Your task to perform on an android device: Play the last video I watched on Youtube Image 0: 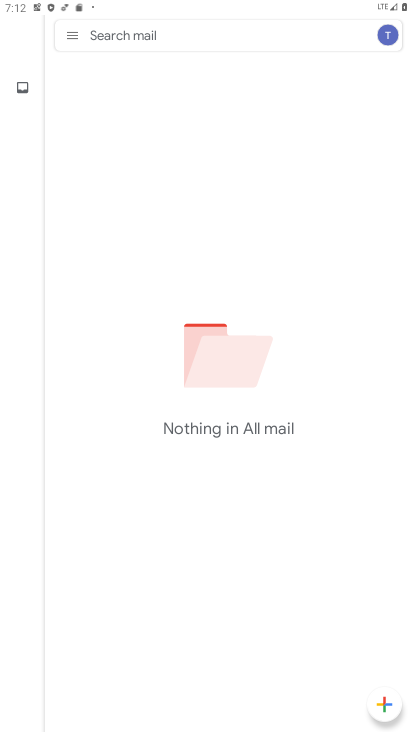
Step 0: press home button
Your task to perform on an android device: Play the last video I watched on Youtube Image 1: 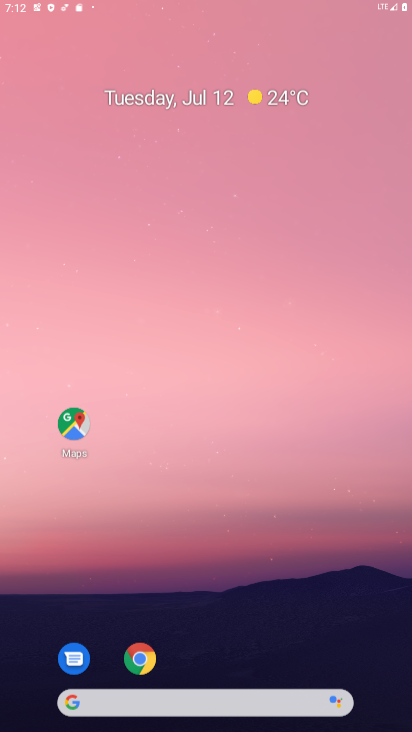
Step 1: drag from (392, 678) to (272, 15)
Your task to perform on an android device: Play the last video I watched on Youtube Image 2: 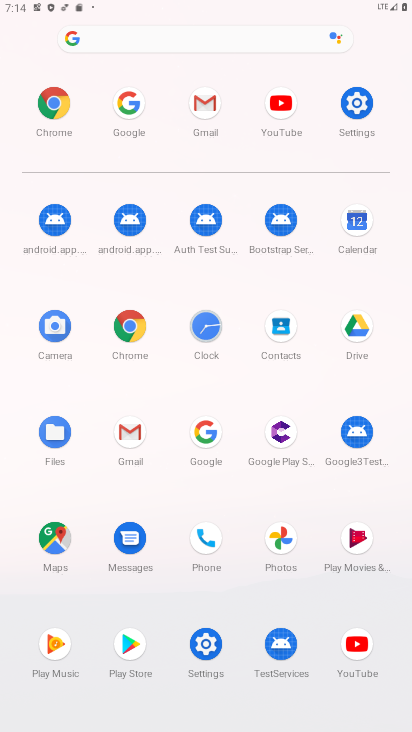
Step 2: click (359, 667)
Your task to perform on an android device: Play the last video I watched on Youtube Image 3: 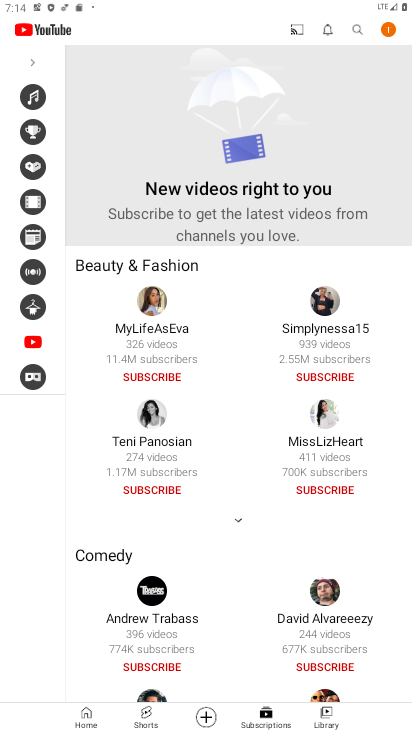
Step 3: task complete